Your task to perform on an android device: Go to calendar. Show me events next week Image 0: 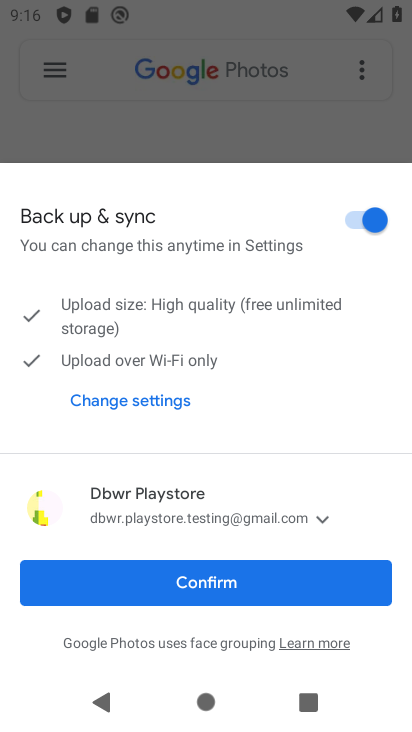
Step 0: press home button
Your task to perform on an android device: Go to calendar. Show me events next week Image 1: 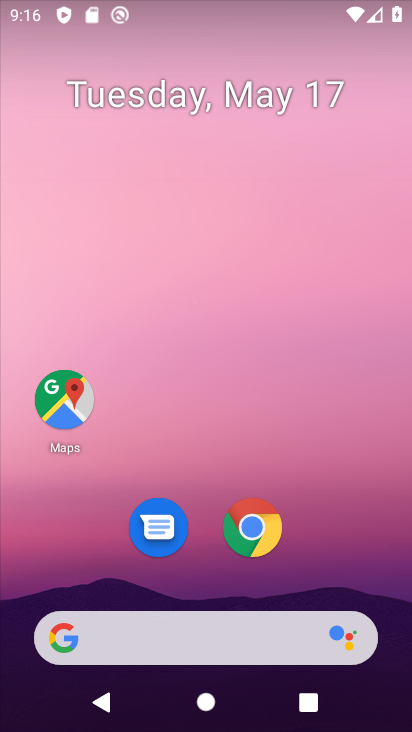
Step 1: drag from (196, 589) to (264, 63)
Your task to perform on an android device: Go to calendar. Show me events next week Image 2: 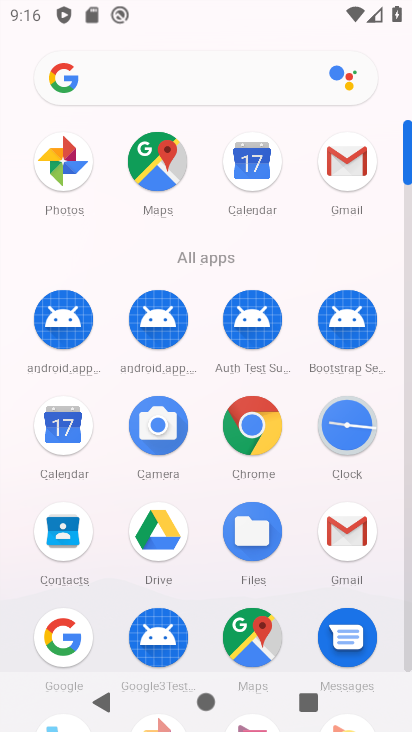
Step 2: click (78, 453)
Your task to perform on an android device: Go to calendar. Show me events next week Image 3: 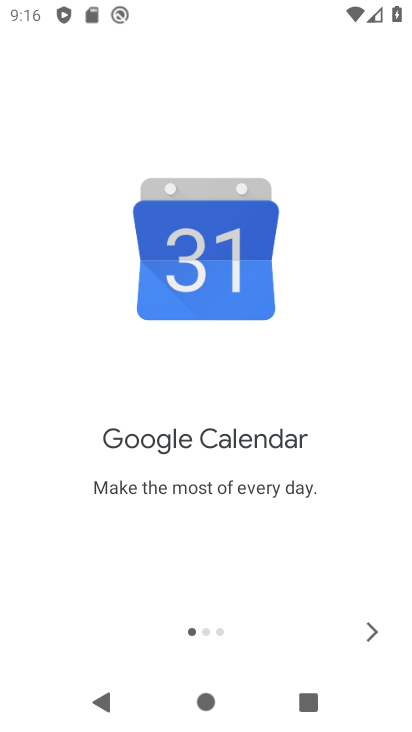
Step 3: click (374, 630)
Your task to perform on an android device: Go to calendar. Show me events next week Image 4: 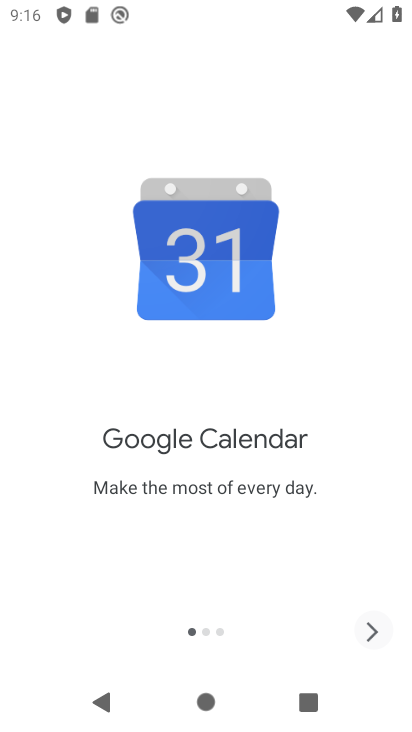
Step 4: click (374, 630)
Your task to perform on an android device: Go to calendar. Show me events next week Image 5: 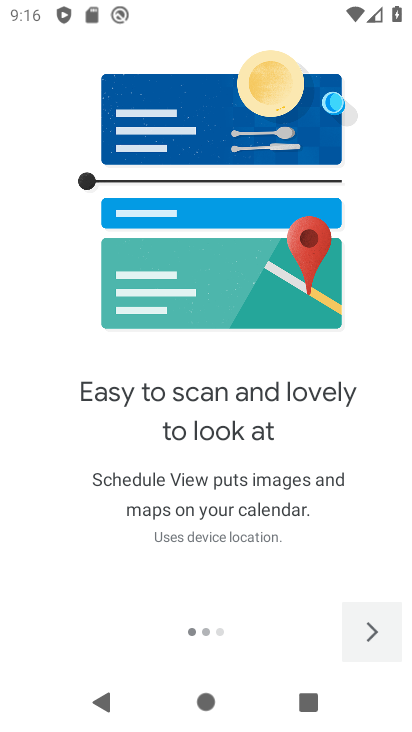
Step 5: click (374, 630)
Your task to perform on an android device: Go to calendar. Show me events next week Image 6: 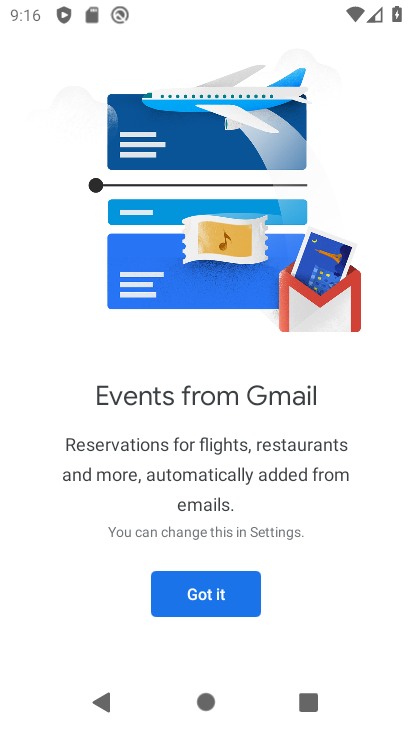
Step 6: click (374, 630)
Your task to perform on an android device: Go to calendar. Show me events next week Image 7: 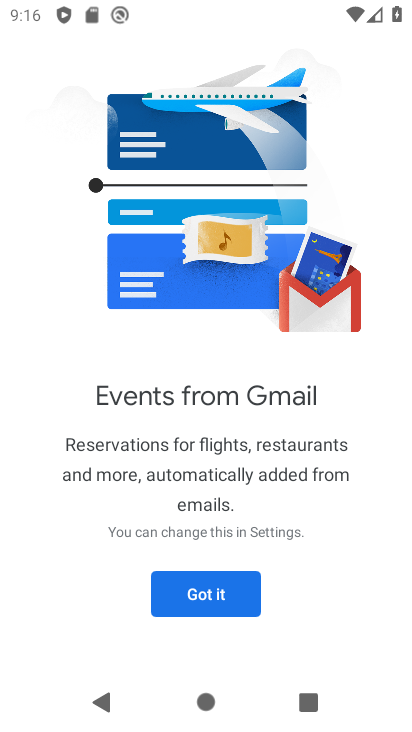
Step 7: click (186, 599)
Your task to perform on an android device: Go to calendar. Show me events next week Image 8: 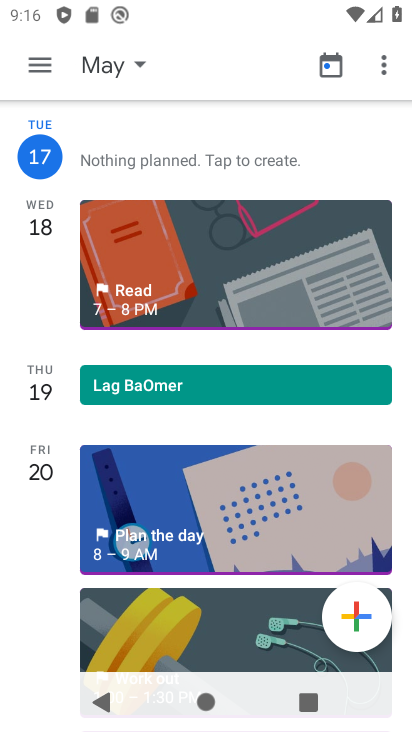
Step 8: click (50, 74)
Your task to perform on an android device: Go to calendar. Show me events next week Image 9: 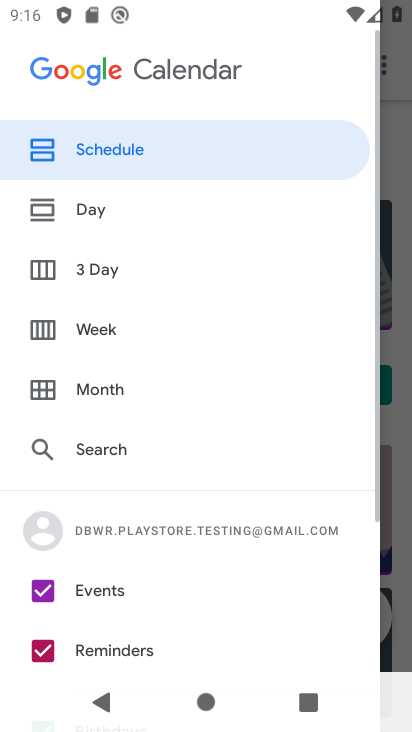
Step 9: click (126, 322)
Your task to perform on an android device: Go to calendar. Show me events next week Image 10: 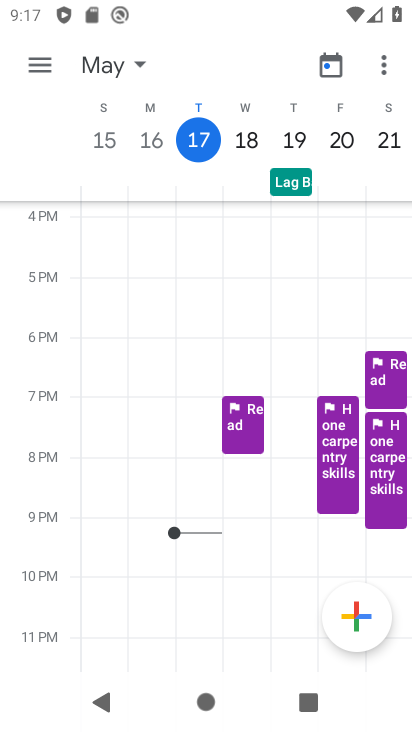
Step 10: click (28, 59)
Your task to perform on an android device: Go to calendar. Show me events next week Image 11: 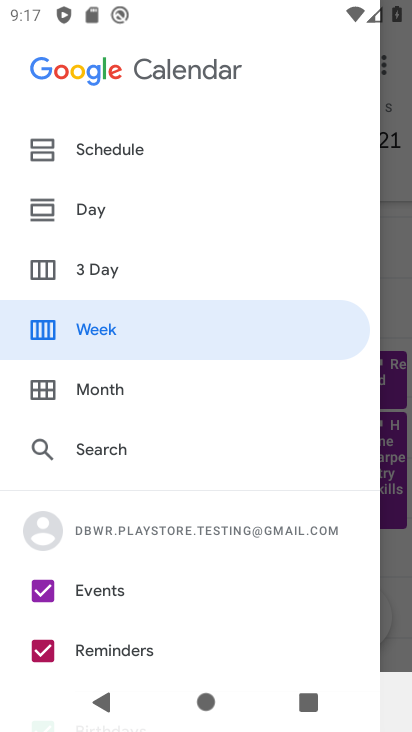
Step 11: drag from (132, 586) to (156, 264)
Your task to perform on an android device: Go to calendar. Show me events next week Image 12: 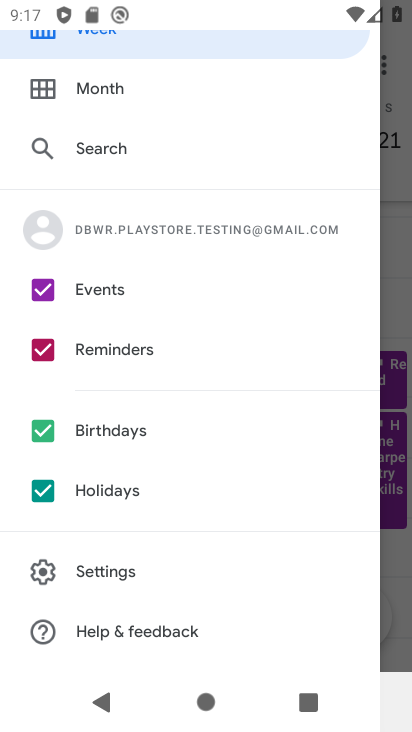
Step 12: click (45, 483)
Your task to perform on an android device: Go to calendar. Show me events next week Image 13: 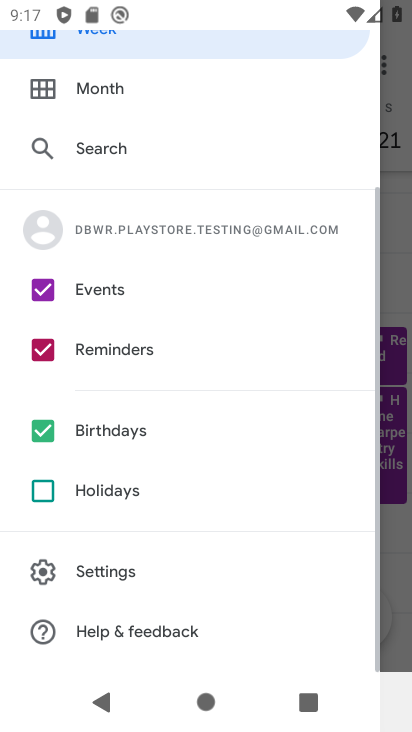
Step 13: click (45, 433)
Your task to perform on an android device: Go to calendar. Show me events next week Image 14: 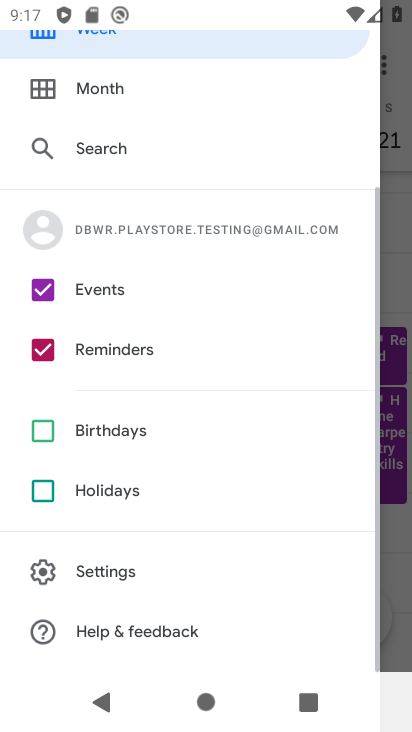
Step 14: click (46, 354)
Your task to perform on an android device: Go to calendar. Show me events next week Image 15: 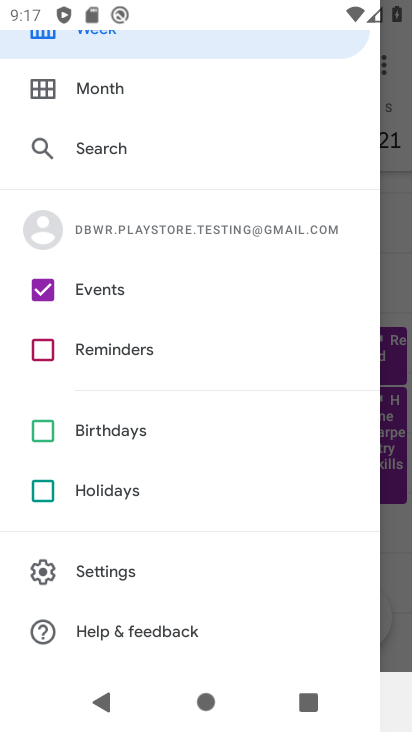
Step 15: click (398, 364)
Your task to perform on an android device: Go to calendar. Show me events next week Image 16: 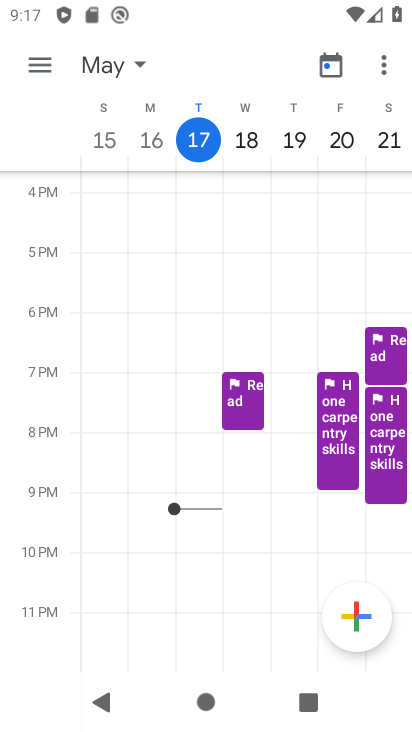
Step 16: task complete